Your task to perform on an android device: turn on airplane mode Image 0: 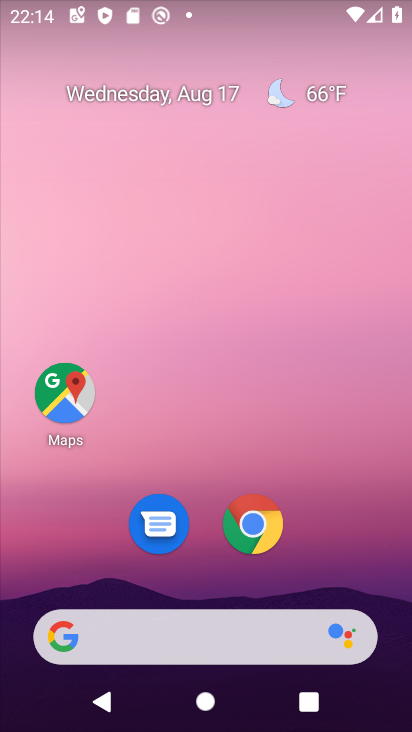
Step 0: drag from (322, 479) to (336, 0)
Your task to perform on an android device: turn on airplane mode Image 1: 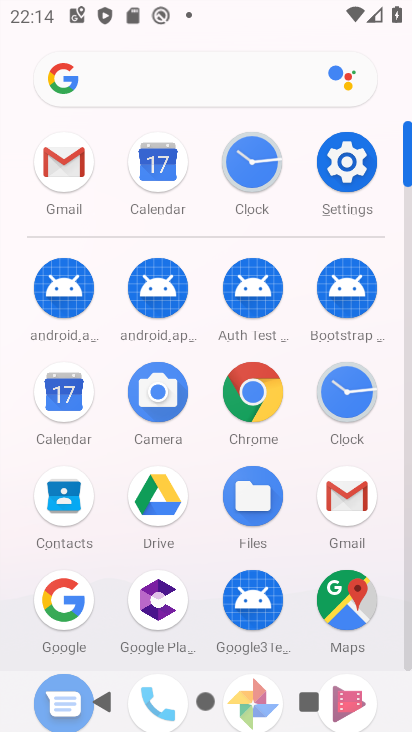
Step 1: click (348, 161)
Your task to perform on an android device: turn on airplane mode Image 2: 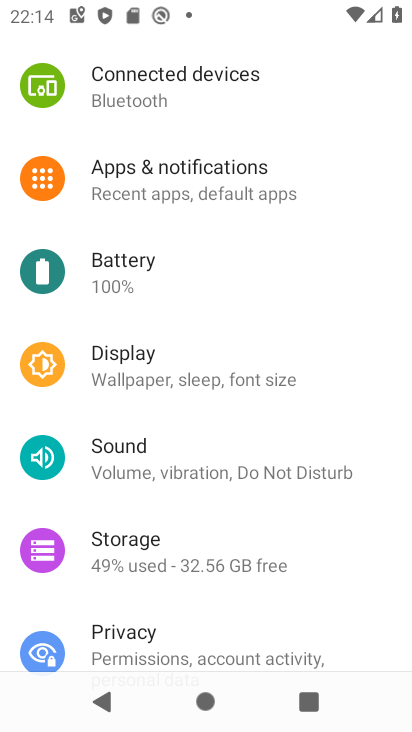
Step 2: drag from (216, 299) to (246, 612)
Your task to perform on an android device: turn on airplane mode Image 3: 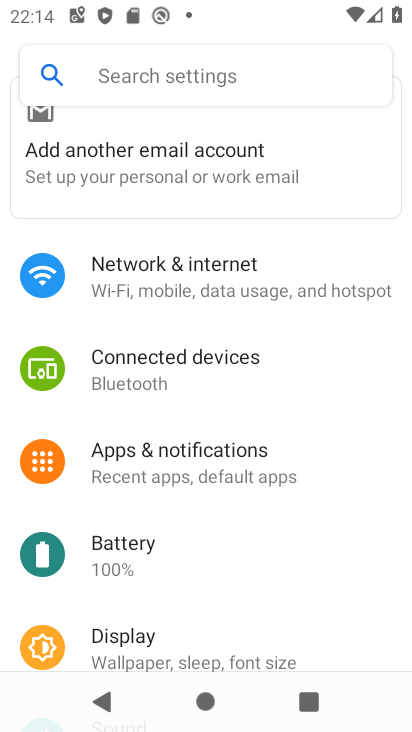
Step 3: click (246, 282)
Your task to perform on an android device: turn on airplane mode Image 4: 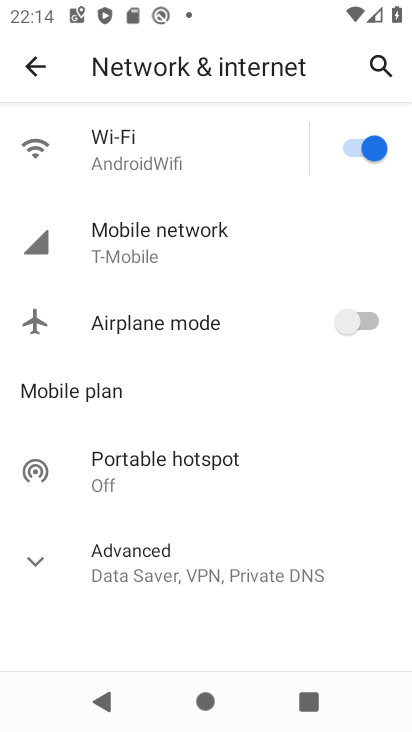
Step 4: click (356, 316)
Your task to perform on an android device: turn on airplane mode Image 5: 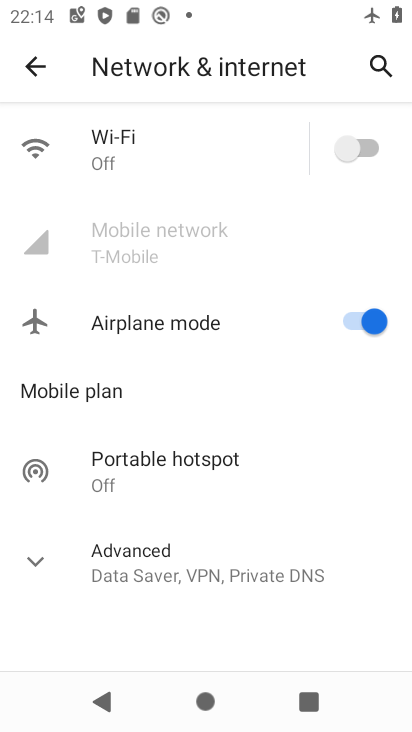
Step 5: task complete